Your task to perform on an android device: add a contact in the contacts app Image 0: 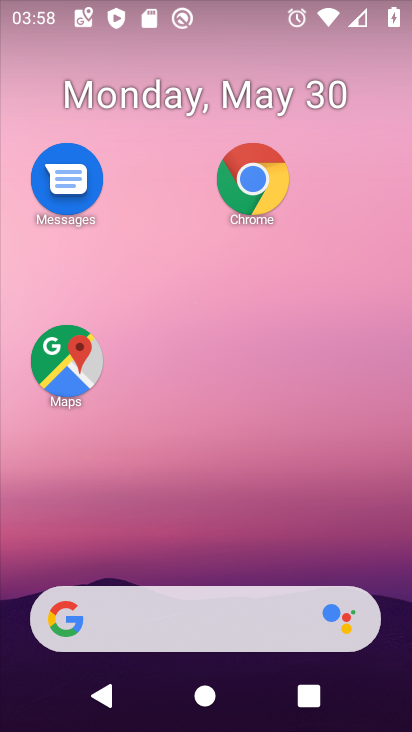
Step 0: drag from (231, 546) to (260, 36)
Your task to perform on an android device: add a contact in the contacts app Image 1: 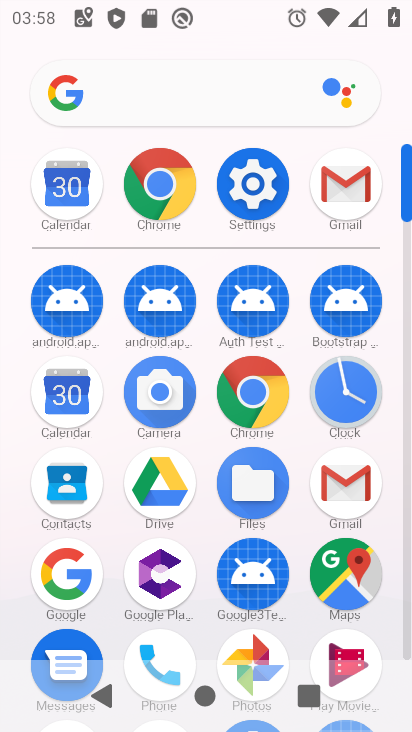
Step 1: click (69, 514)
Your task to perform on an android device: add a contact in the contacts app Image 2: 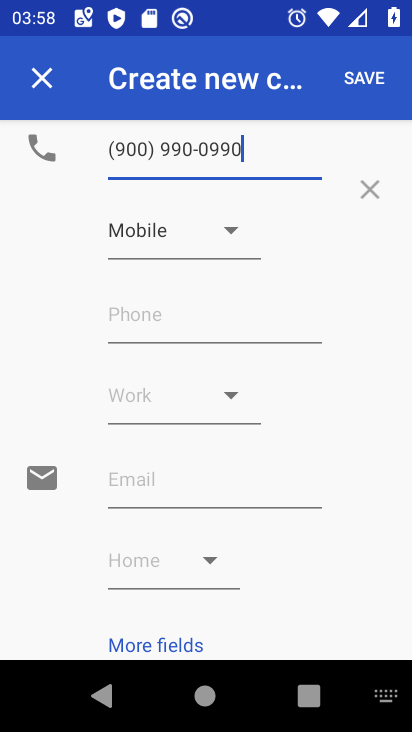
Step 2: click (38, 80)
Your task to perform on an android device: add a contact in the contacts app Image 3: 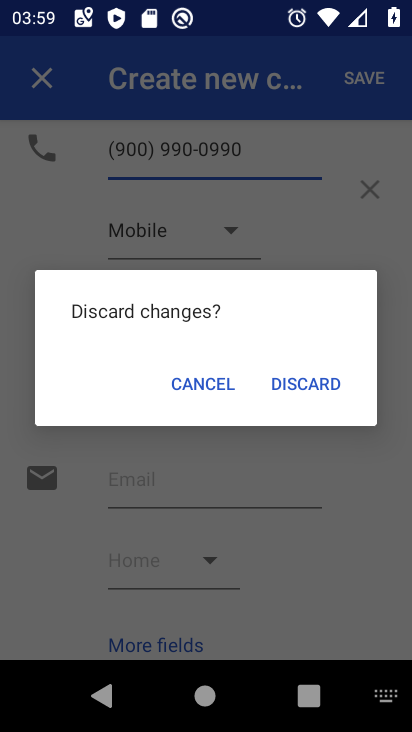
Step 3: click (280, 385)
Your task to perform on an android device: add a contact in the contacts app Image 4: 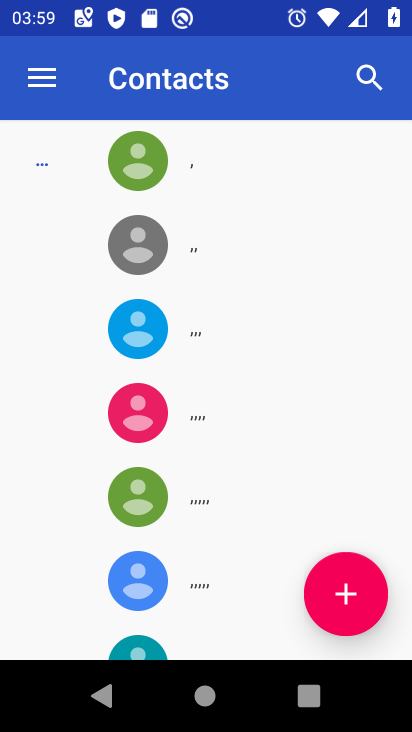
Step 4: click (343, 604)
Your task to perform on an android device: add a contact in the contacts app Image 5: 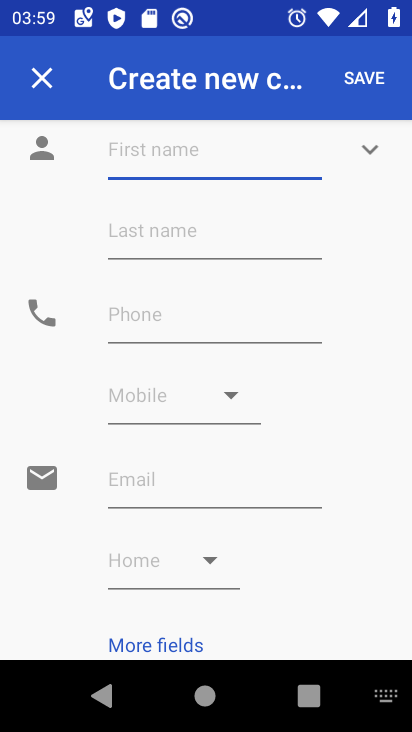
Step 5: type "Purnima"
Your task to perform on an android device: add a contact in the contacts app Image 6: 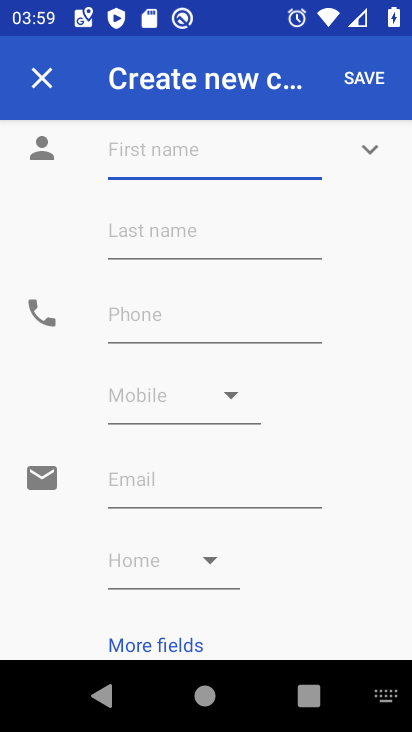
Step 6: click (150, 235)
Your task to perform on an android device: add a contact in the contacts app Image 7: 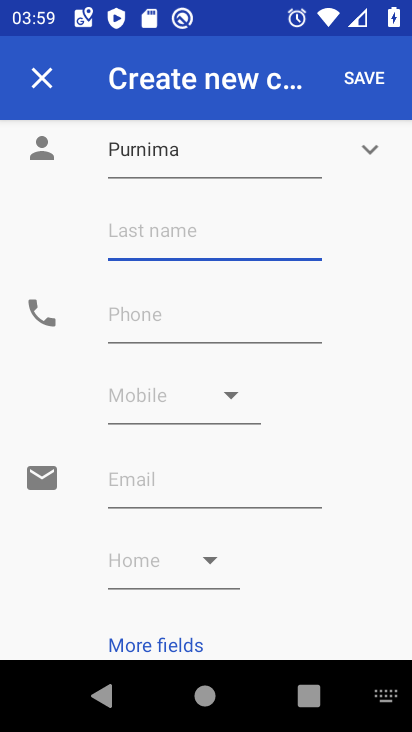
Step 7: type "Dayal"
Your task to perform on an android device: add a contact in the contacts app Image 8: 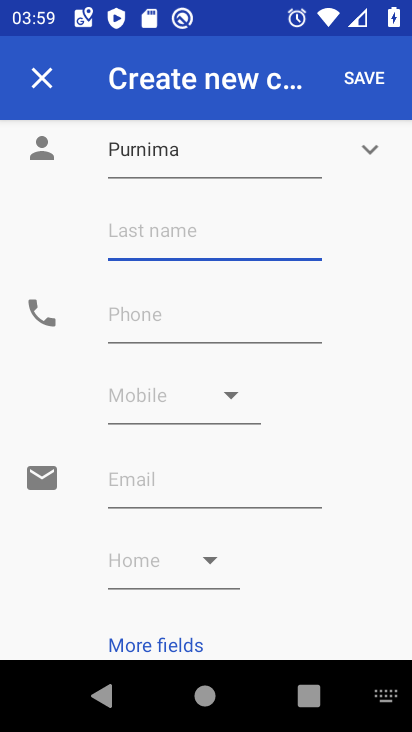
Step 8: click (136, 320)
Your task to perform on an android device: add a contact in the contacts app Image 9: 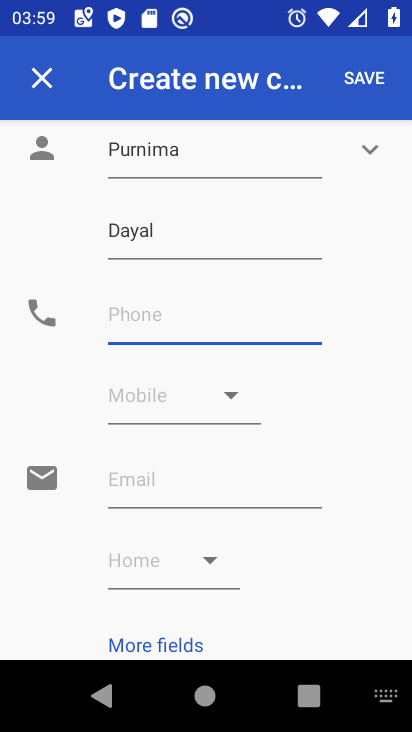
Step 9: type "8998898800"
Your task to perform on an android device: add a contact in the contacts app Image 10: 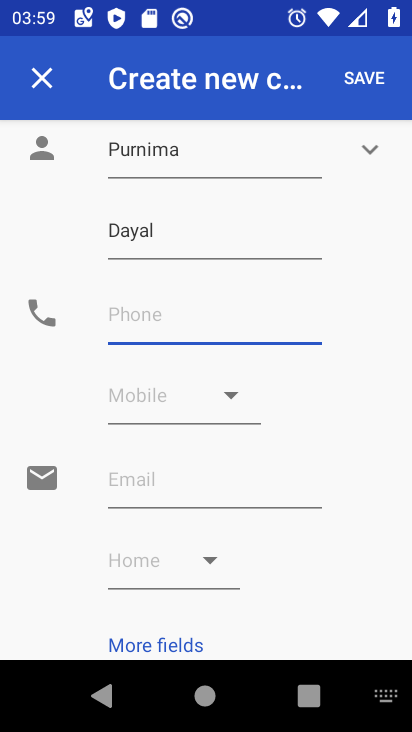
Step 10: click (189, 309)
Your task to perform on an android device: add a contact in the contacts app Image 11: 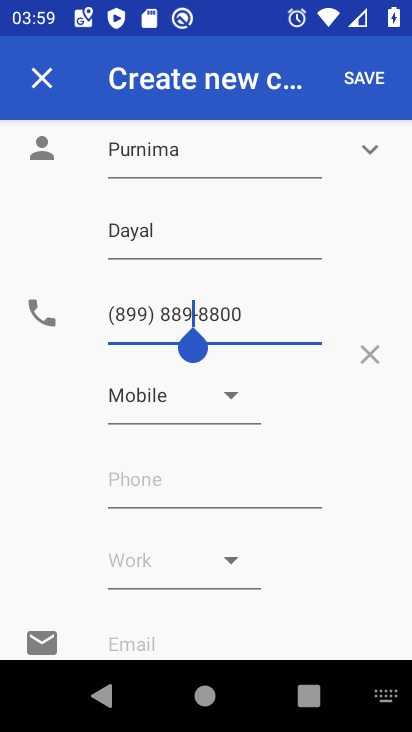
Step 11: click (370, 73)
Your task to perform on an android device: add a contact in the contacts app Image 12: 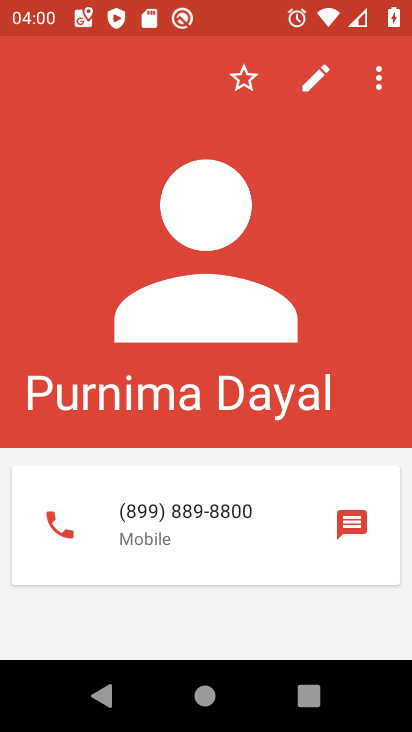
Step 12: task complete